Your task to perform on an android device: Turn off the flashlight Image 0: 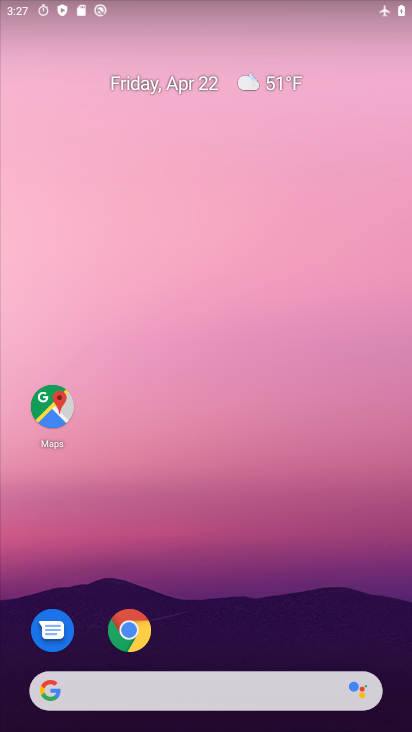
Step 0: drag from (197, 521) to (149, 26)
Your task to perform on an android device: Turn off the flashlight Image 1: 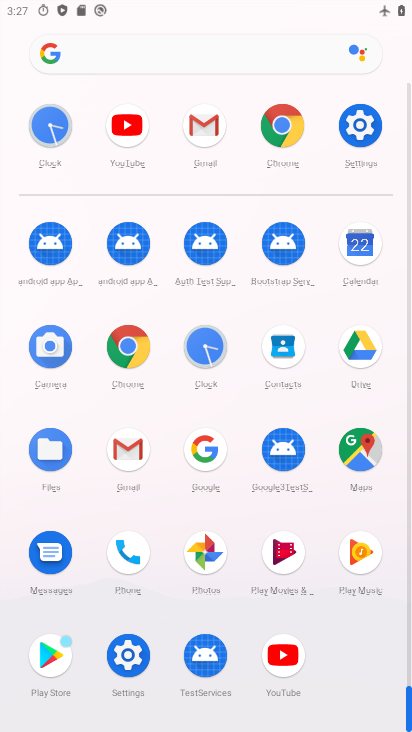
Step 1: drag from (13, 539) to (0, 242)
Your task to perform on an android device: Turn off the flashlight Image 2: 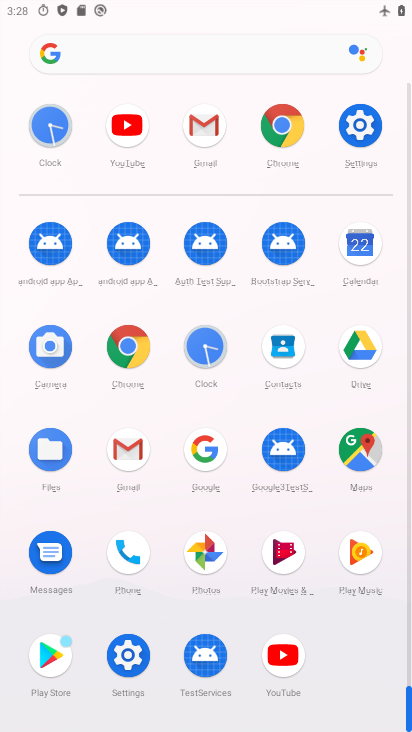
Step 2: click (127, 652)
Your task to perform on an android device: Turn off the flashlight Image 3: 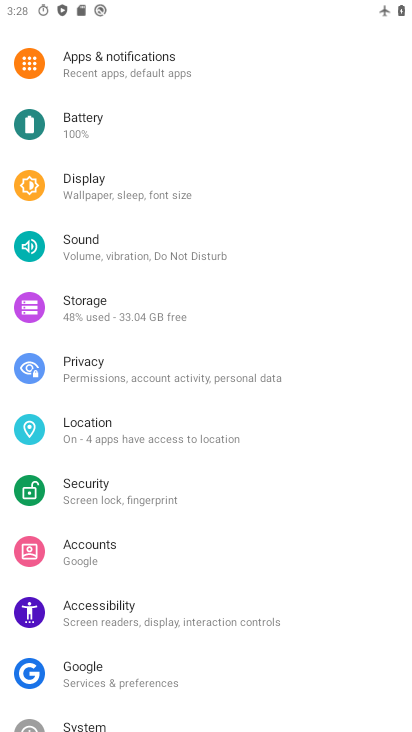
Step 3: drag from (296, 154) to (306, 598)
Your task to perform on an android device: Turn off the flashlight Image 4: 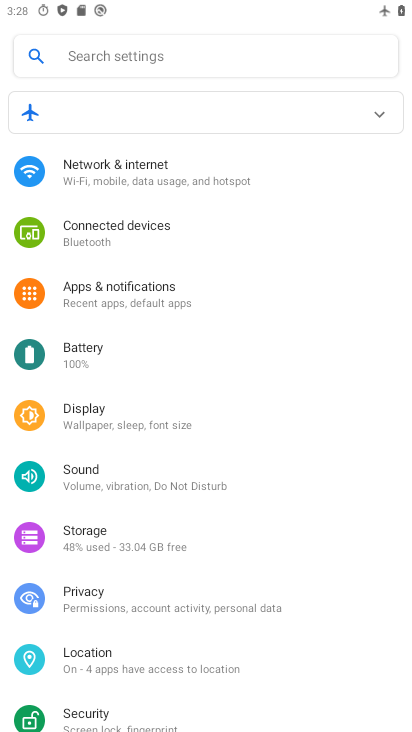
Step 4: drag from (250, 304) to (254, 572)
Your task to perform on an android device: Turn off the flashlight Image 5: 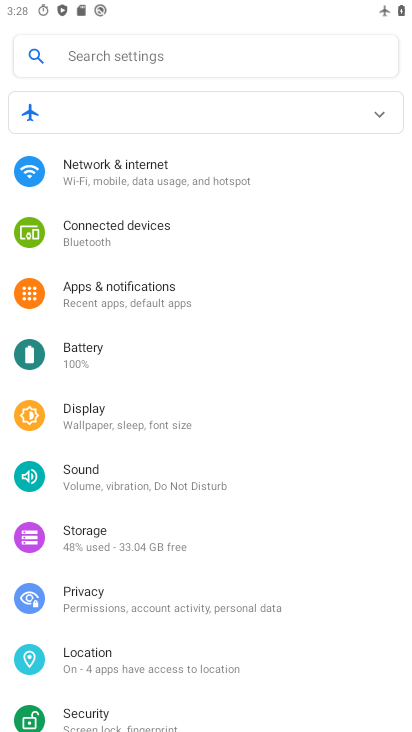
Step 5: drag from (335, 568) to (297, 170)
Your task to perform on an android device: Turn off the flashlight Image 6: 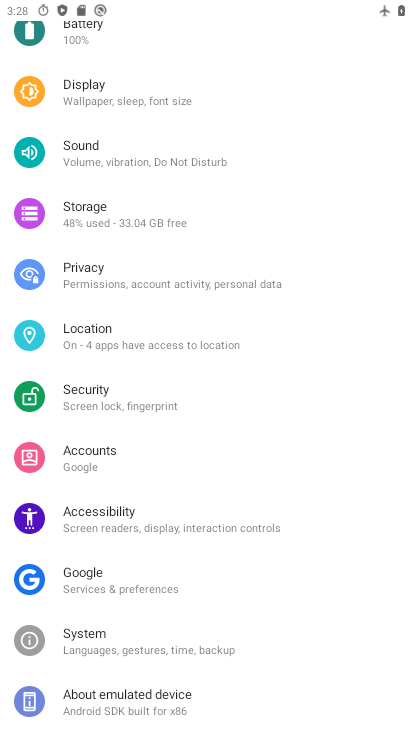
Step 6: drag from (334, 558) to (316, 174)
Your task to perform on an android device: Turn off the flashlight Image 7: 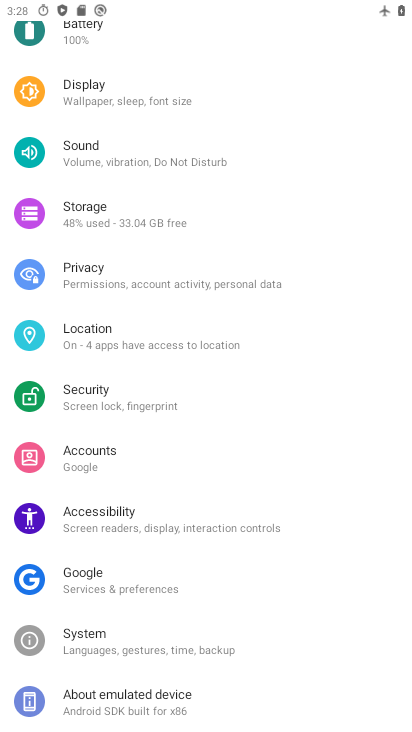
Step 7: drag from (243, 227) to (270, 527)
Your task to perform on an android device: Turn off the flashlight Image 8: 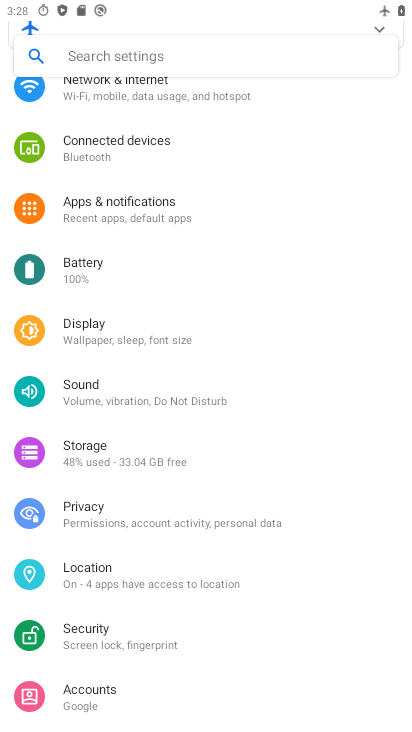
Step 8: drag from (236, 214) to (277, 485)
Your task to perform on an android device: Turn off the flashlight Image 9: 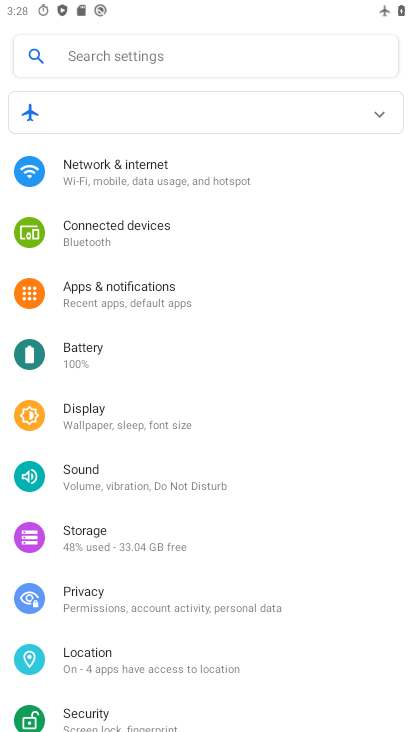
Step 9: click (168, 163)
Your task to perform on an android device: Turn off the flashlight Image 10: 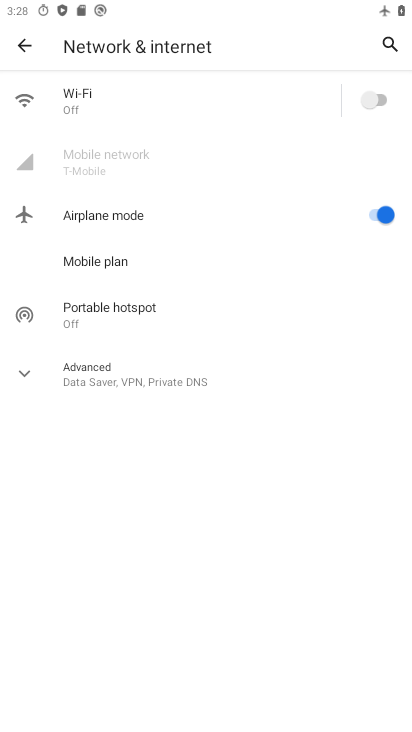
Step 10: click (50, 373)
Your task to perform on an android device: Turn off the flashlight Image 11: 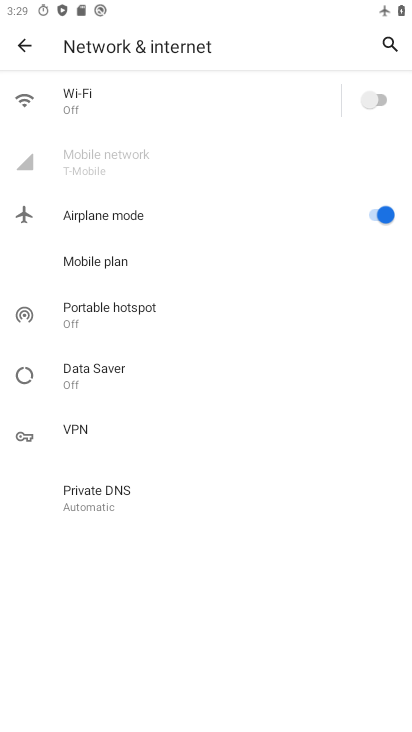
Step 11: click (19, 37)
Your task to perform on an android device: Turn off the flashlight Image 12: 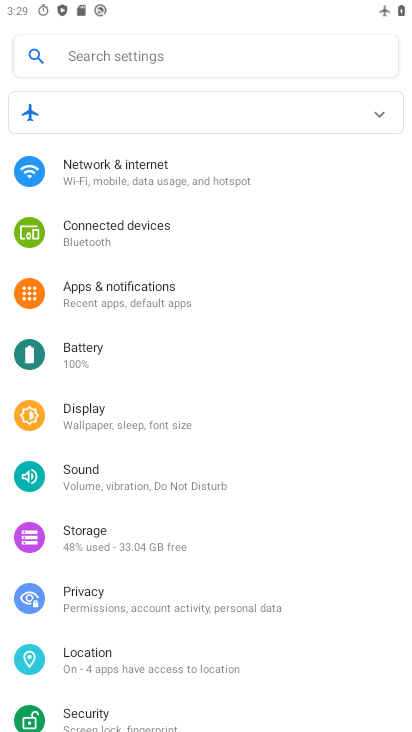
Step 12: click (172, 430)
Your task to perform on an android device: Turn off the flashlight Image 13: 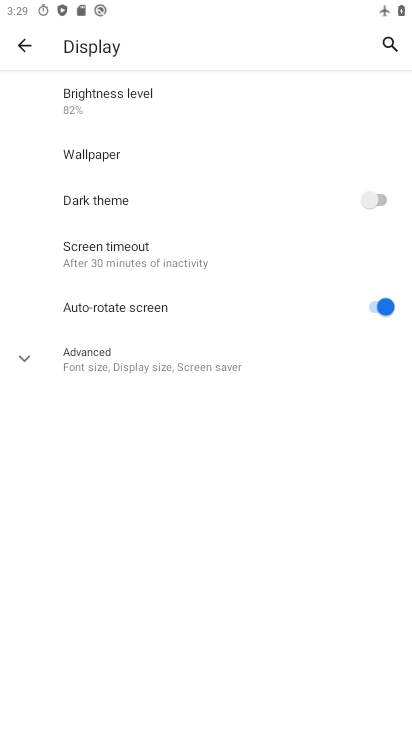
Step 13: click (29, 352)
Your task to perform on an android device: Turn off the flashlight Image 14: 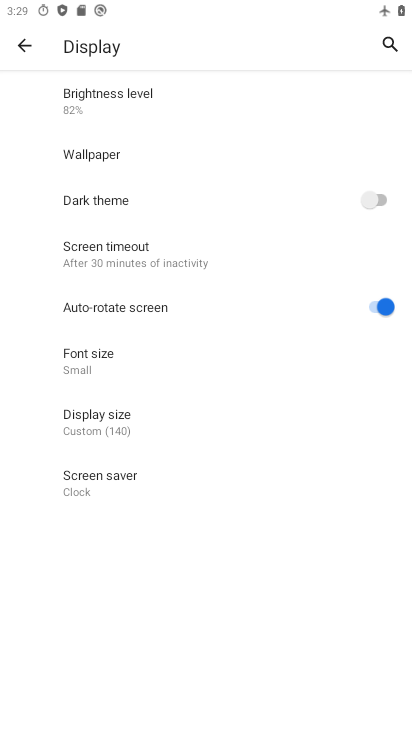
Step 14: task complete